Your task to perform on an android device: Open Youtube and go to the subscriptions tab Image 0: 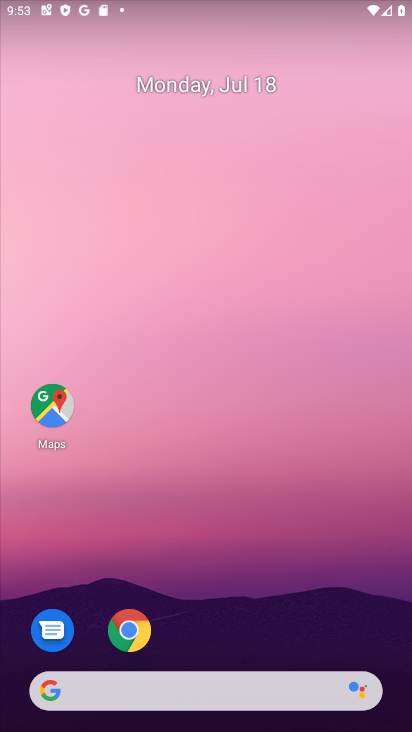
Step 0: drag from (373, 616) to (106, 26)
Your task to perform on an android device: Open Youtube and go to the subscriptions tab Image 1: 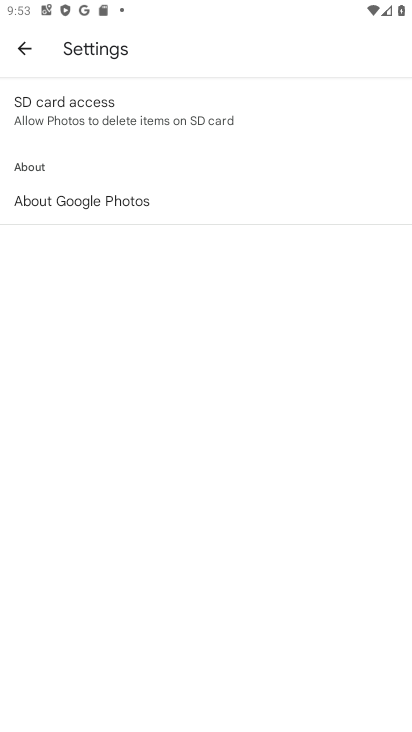
Step 1: press home button
Your task to perform on an android device: Open Youtube and go to the subscriptions tab Image 2: 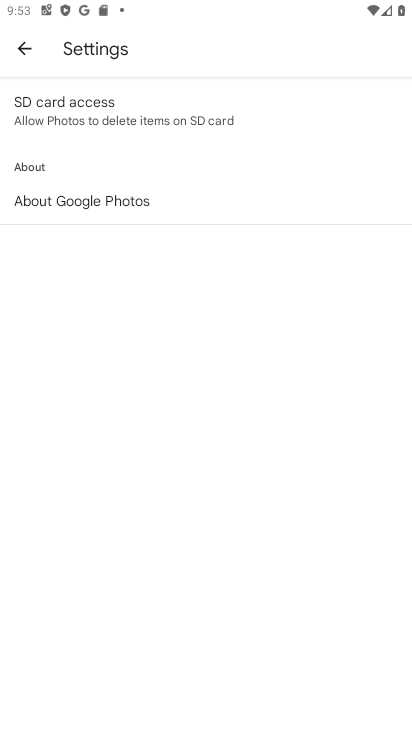
Step 2: drag from (369, 695) to (215, 1)
Your task to perform on an android device: Open Youtube and go to the subscriptions tab Image 3: 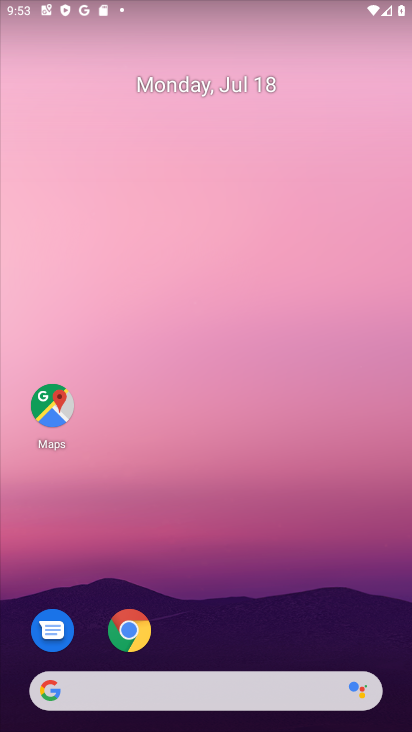
Step 3: drag from (381, 626) to (176, 68)
Your task to perform on an android device: Open Youtube and go to the subscriptions tab Image 4: 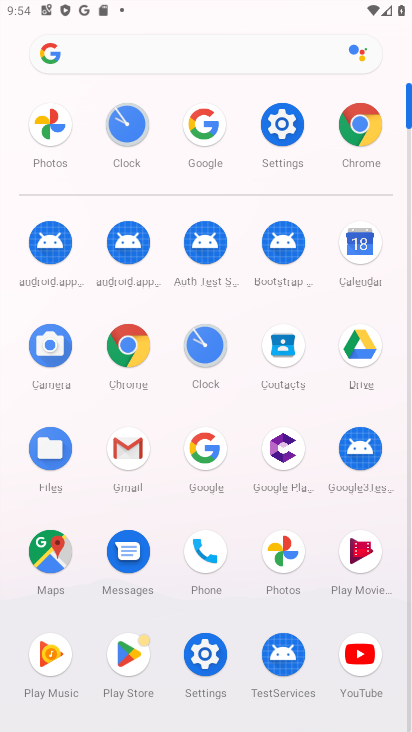
Step 4: click (346, 650)
Your task to perform on an android device: Open Youtube and go to the subscriptions tab Image 5: 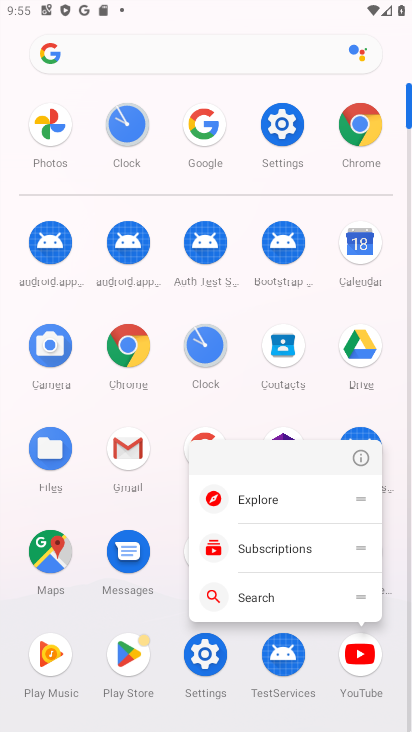
Step 5: click (370, 661)
Your task to perform on an android device: Open Youtube and go to the subscriptions tab Image 6: 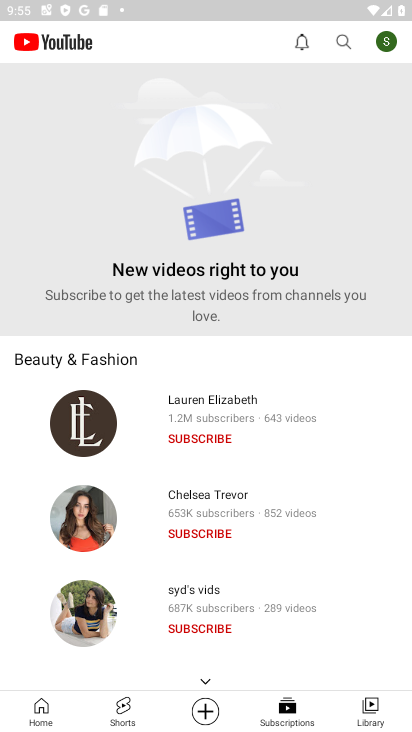
Step 6: task complete